Your task to perform on an android device: read, delete, or share a saved page in the chrome app Image 0: 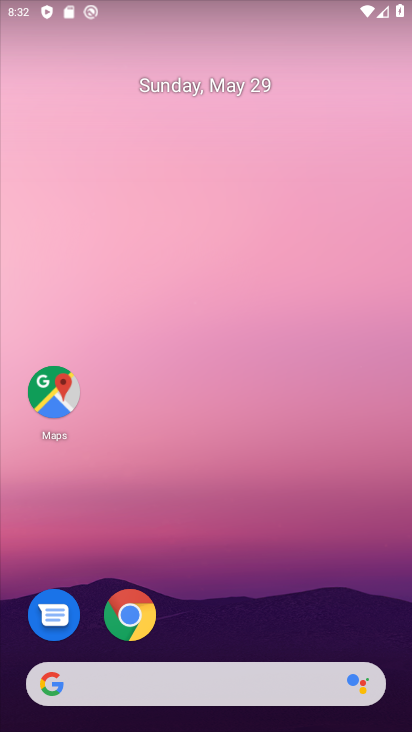
Step 0: click (143, 607)
Your task to perform on an android device: read, delete, or share a saved page in the chrome app Image 1: 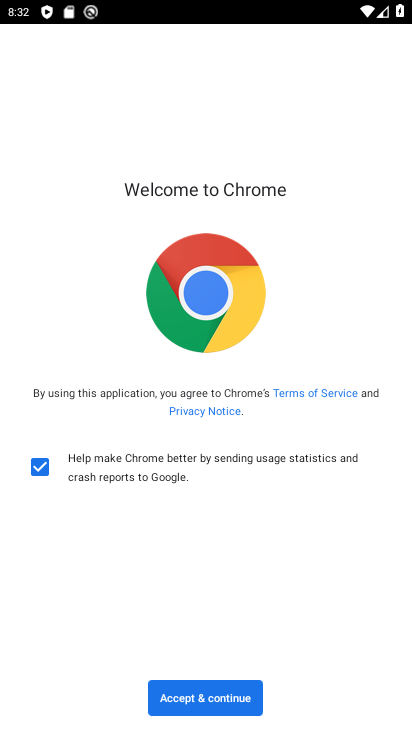
Step 1: click (170, 710)
Your task to perform on an android device: read, delete, or share a saved page in the chrome app Image 2: 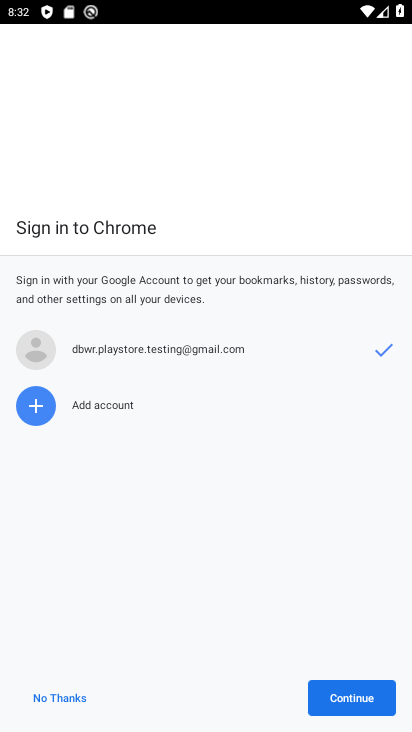
Step 2: click (340, 696)
Your task to perform on an android device: read, delete, or share a saved page in the chrome app Image 3: 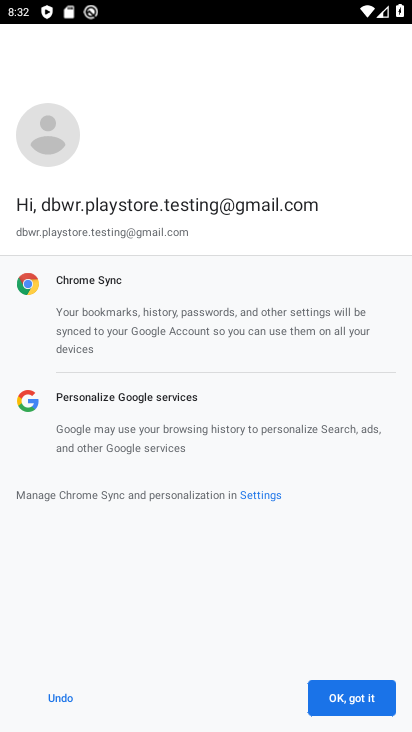
Step 3: click (344, 700)
Your task to perform on an android device: read, delete, or share a saved page in the chrome app Image 4: 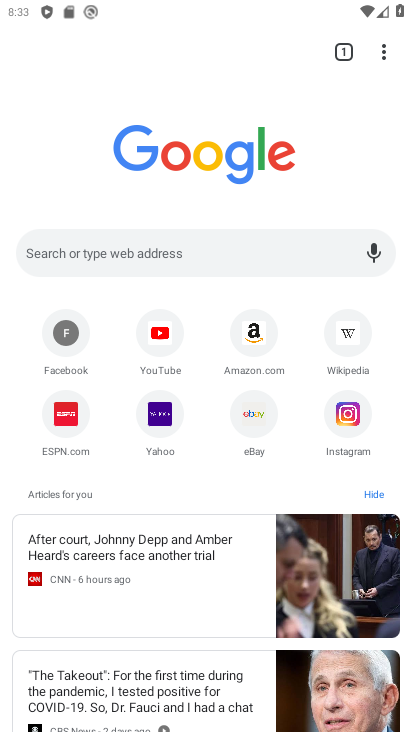
Step 4: click (382, 48)
Your task to perform on an android device: read, delete, or share a saved page in the chrome app Image 5: 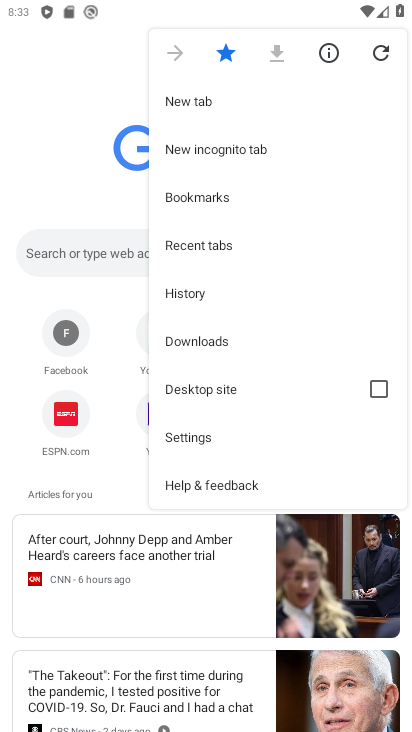
Step 5: click (210, 344)
Your task to perform on an android device: read, delete, or share a saved page in the chrome app Image 6: 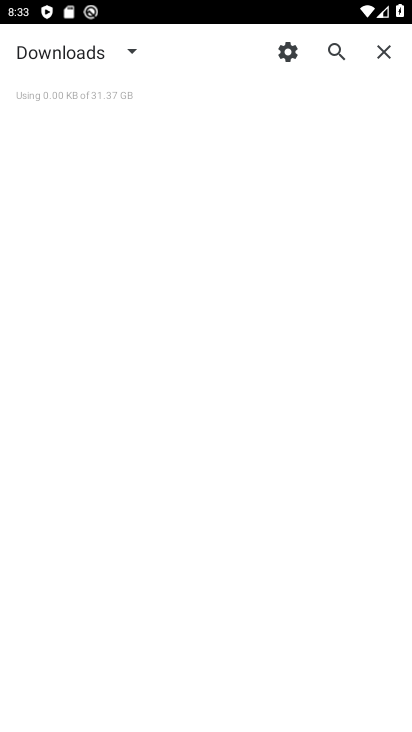
Step 6: click (114, 54)
Your task to perform on an android device: read, delete, or share a saved page in the chrome app Image 7: 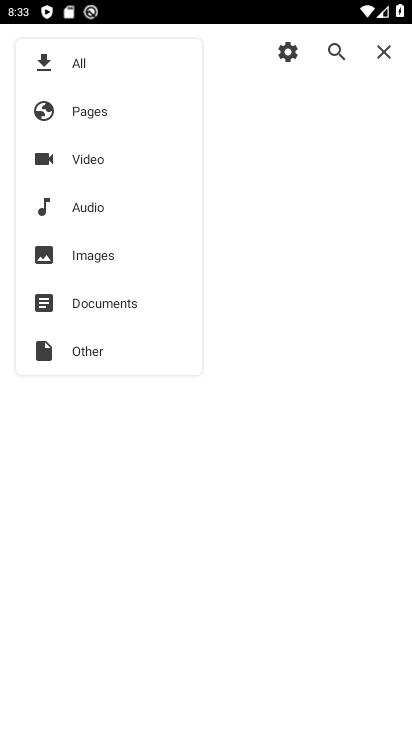
Step 7: click (101, 113)
Your task to perform on an android device: read, delete, or share a saved page in the chrome app Image 8: 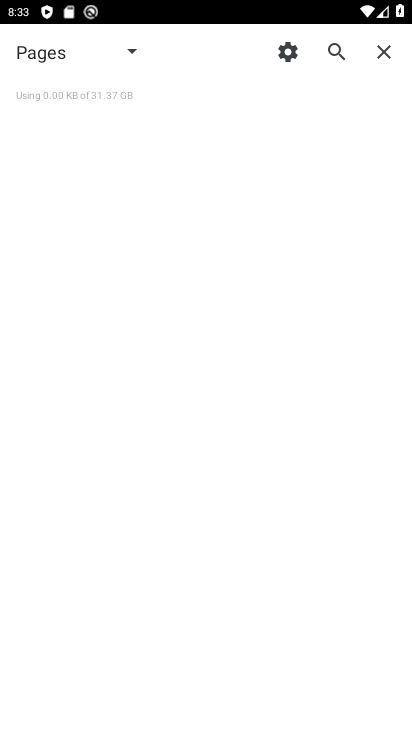
Step 8: task complete